Your task to perform on an android device: find snoozed emails in the gmail app Image 0: 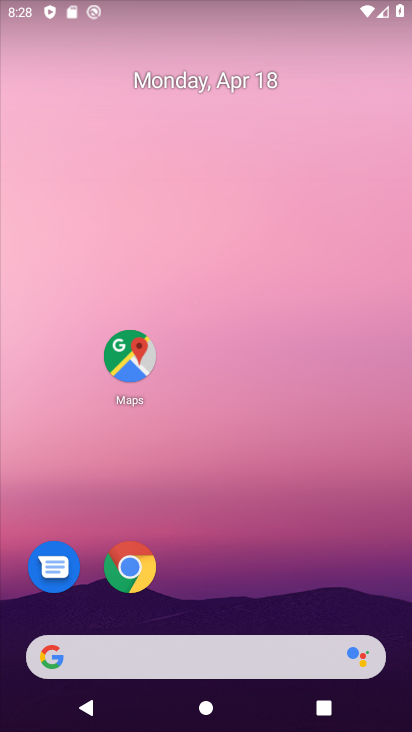
Step 0: drag from (187, 684) to (307, 17)
Your task to perform on an android device: find snoozed emails in the gmail app Image 1: 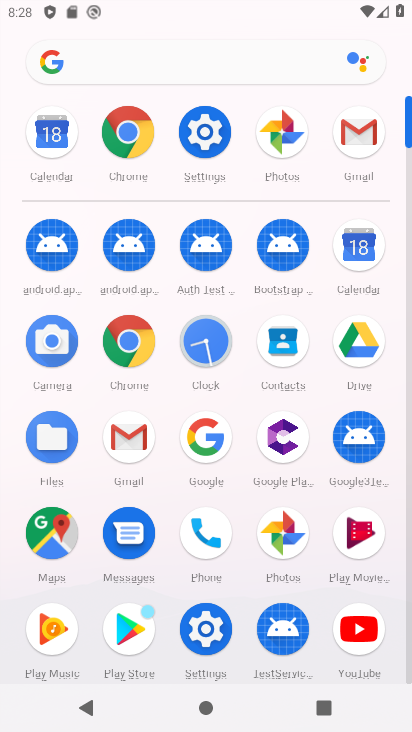
Step 1: click (362, 137)
Your task to perform on an android device: find snoozed emails in the gmail app Image 2: 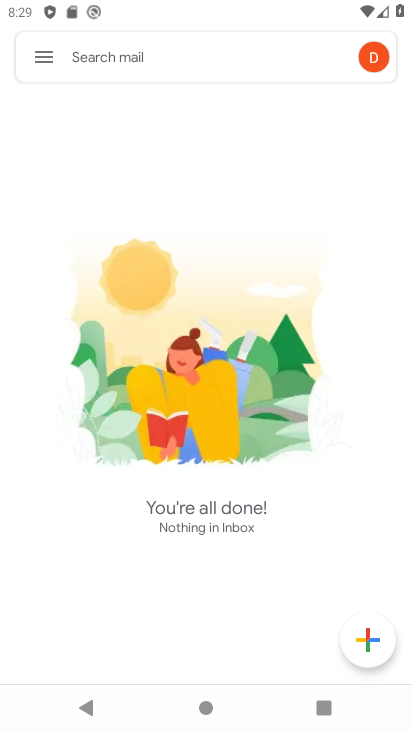
Step 2: click (38, 63)
Your task to perform on an android device: find snoozed emails in the gmail app Image 3: 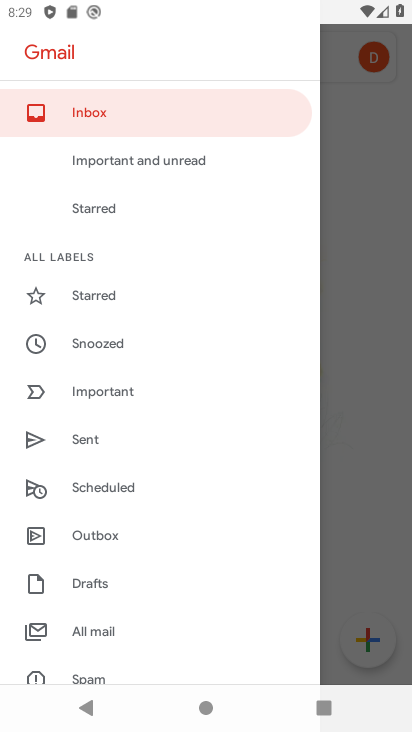
Step 3: click (98, 337)
Your task to perform on an android device: find snoozed emails in the gmail app Image 4: 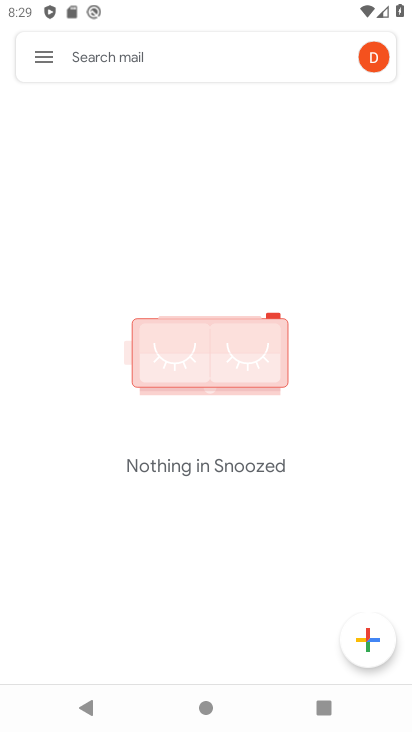
Step 4: task complete